Your task to perform on an android device: open wifi settings Image 0: 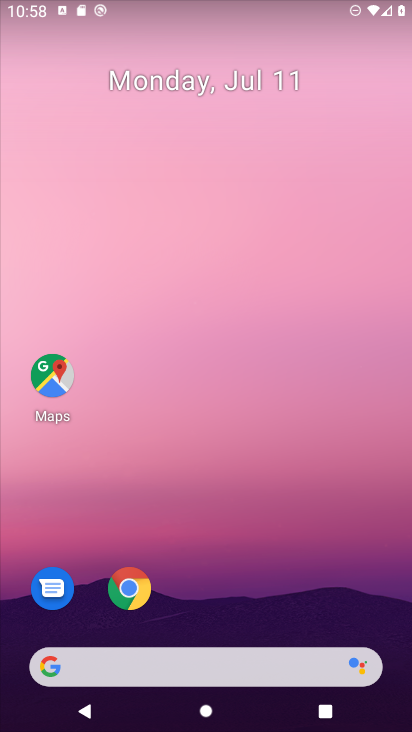
Step 0: drag from (386, 634) to (238, 33)
Your task to perform on an android device: open wifi settings Image 1: 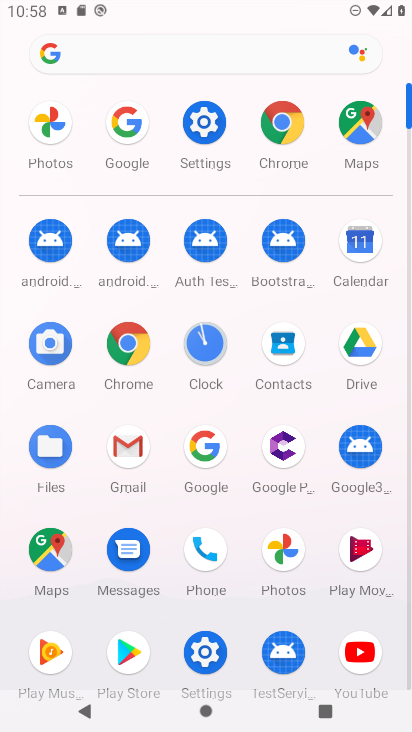
Step 1: click (205, 119)
Your task to perform on an android device: open wifi settings Image 2: 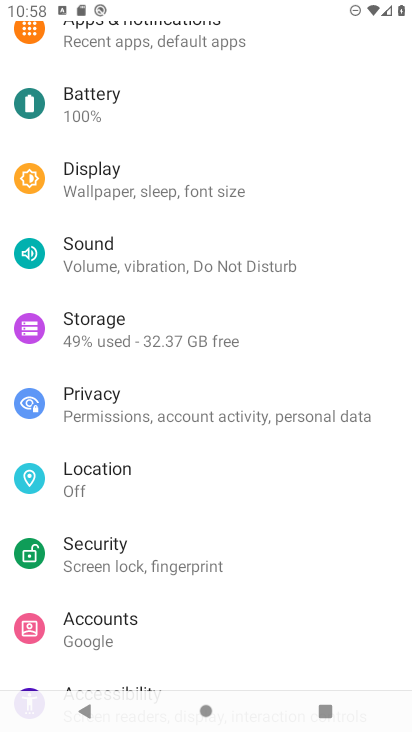
Step 2: drag from (203, 114) to (287, 514)
Your task to perform on an android device: open wifi settings Image 3: 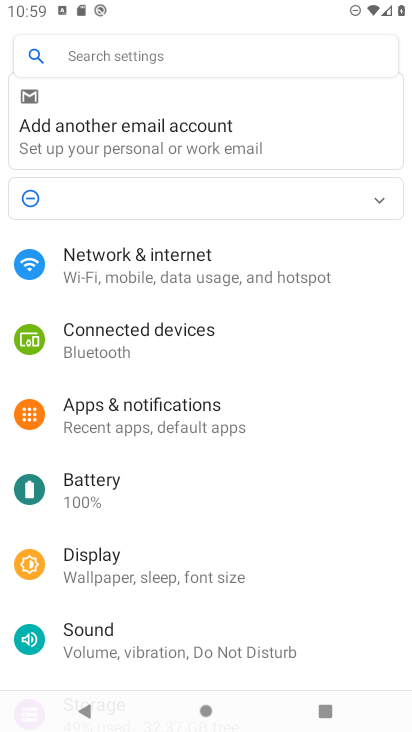
Step 3: click (204, 271)
Your task to perform on an android device: open wifi settings Image 4: 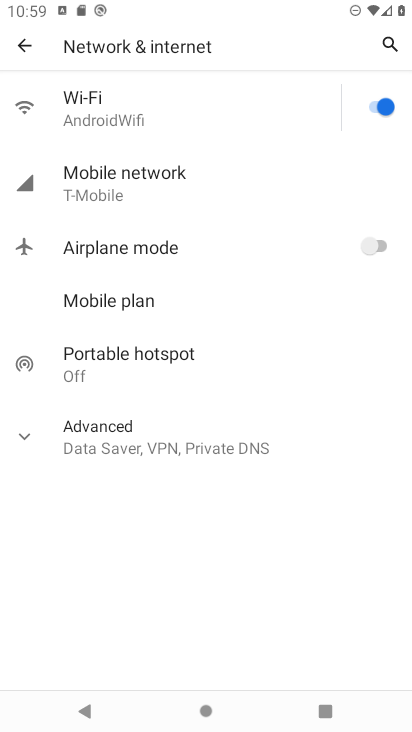
Step 4: click (173, 118)
Your task to perform on an android device: open wifi settings Image 5: 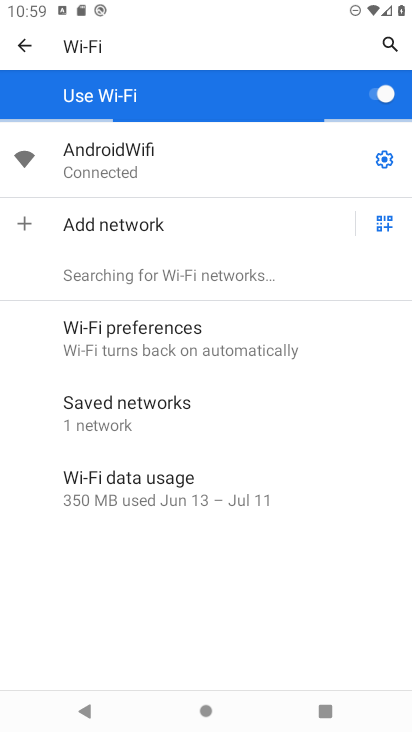
Step 5: task complete